Your task to perform on an android device: toggle wifi Image 0: 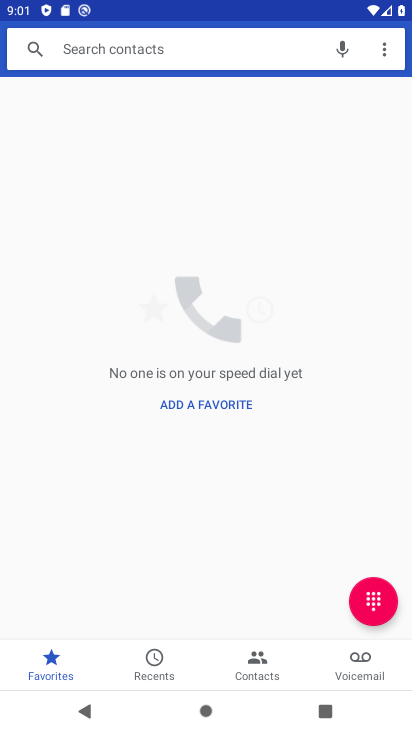
Step 0: press home button
Your task to perform on an android device: toggle wifi Image 1: 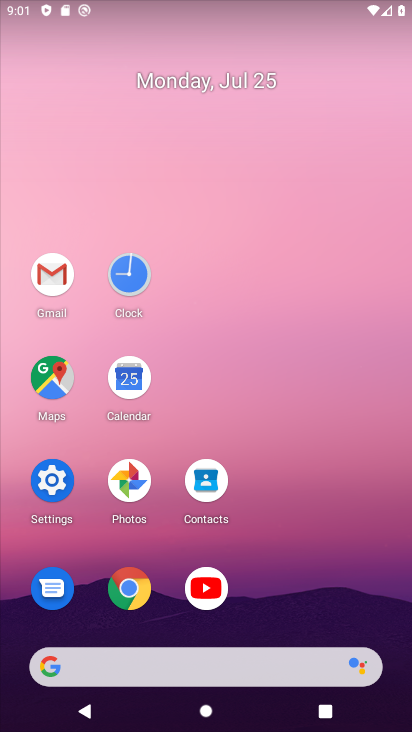
Step 1: click (57, 488)
Your task to perform on an android device: toggle wifi Image 2: 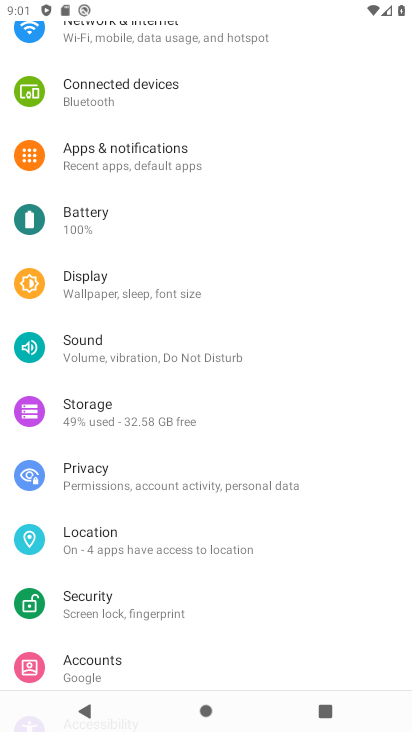
Step 2: drag from (279, 107) to (256, 438)
Your task to perform on an android device: toggle wifi Image 3: 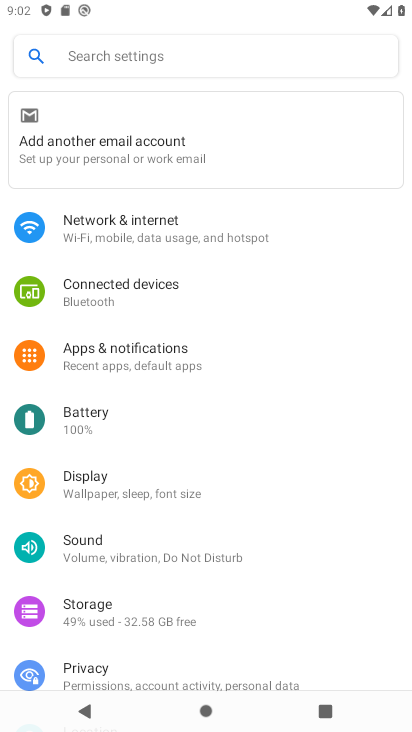
Step 3: click (105, 214)
Your task to perform on an android device: toggle wifi Image 4: 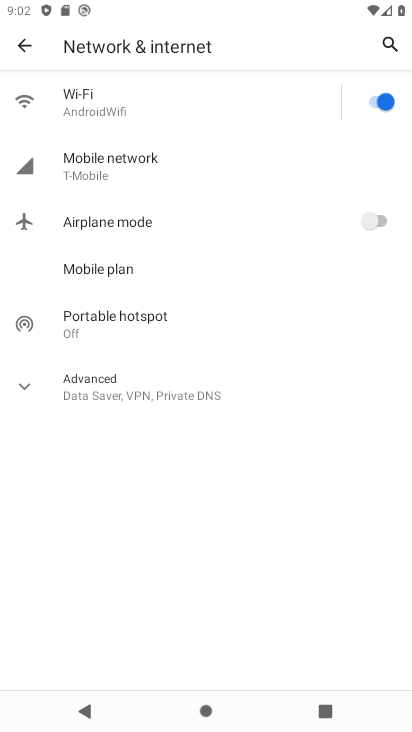
Step 4: click (390, 100)
Your task to perform on an android device: toggle wifi Image 5: 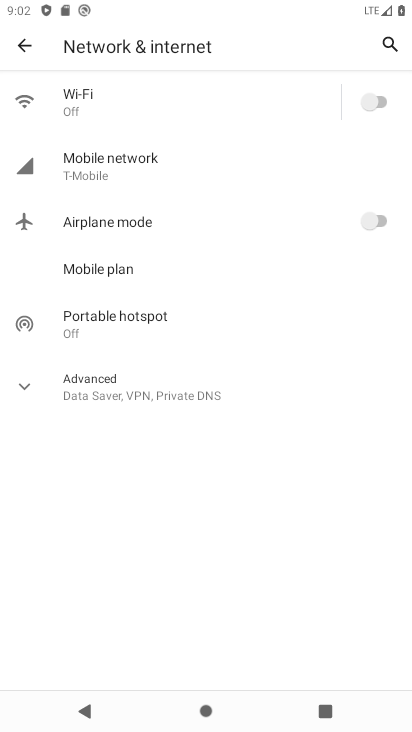
Step 5: task complete